Your task to perform on an android device: Where can I buy a nice beach hat? Image 0: 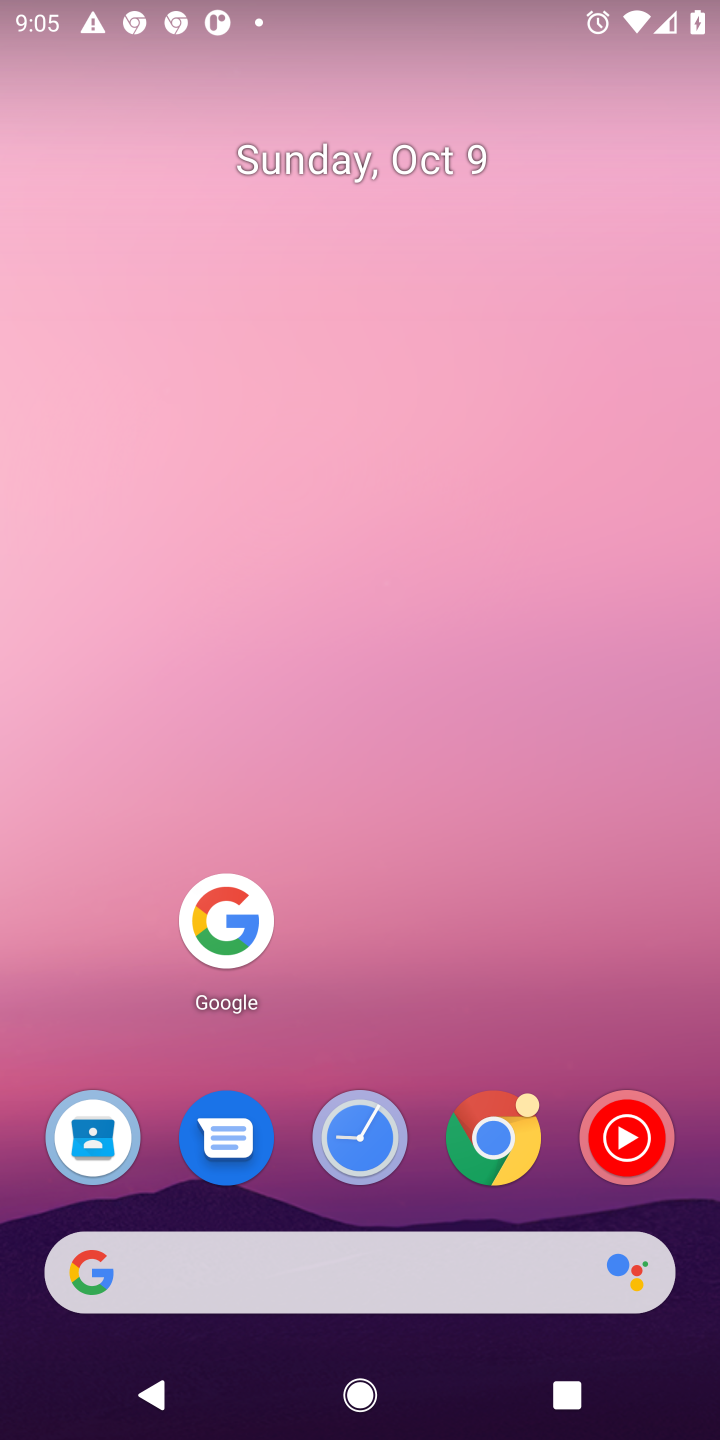
Step 0: drag from (357, 737) to (391, 430)
Your task to perform on an android device: Where can I buy a nice beach hat? Image 1: 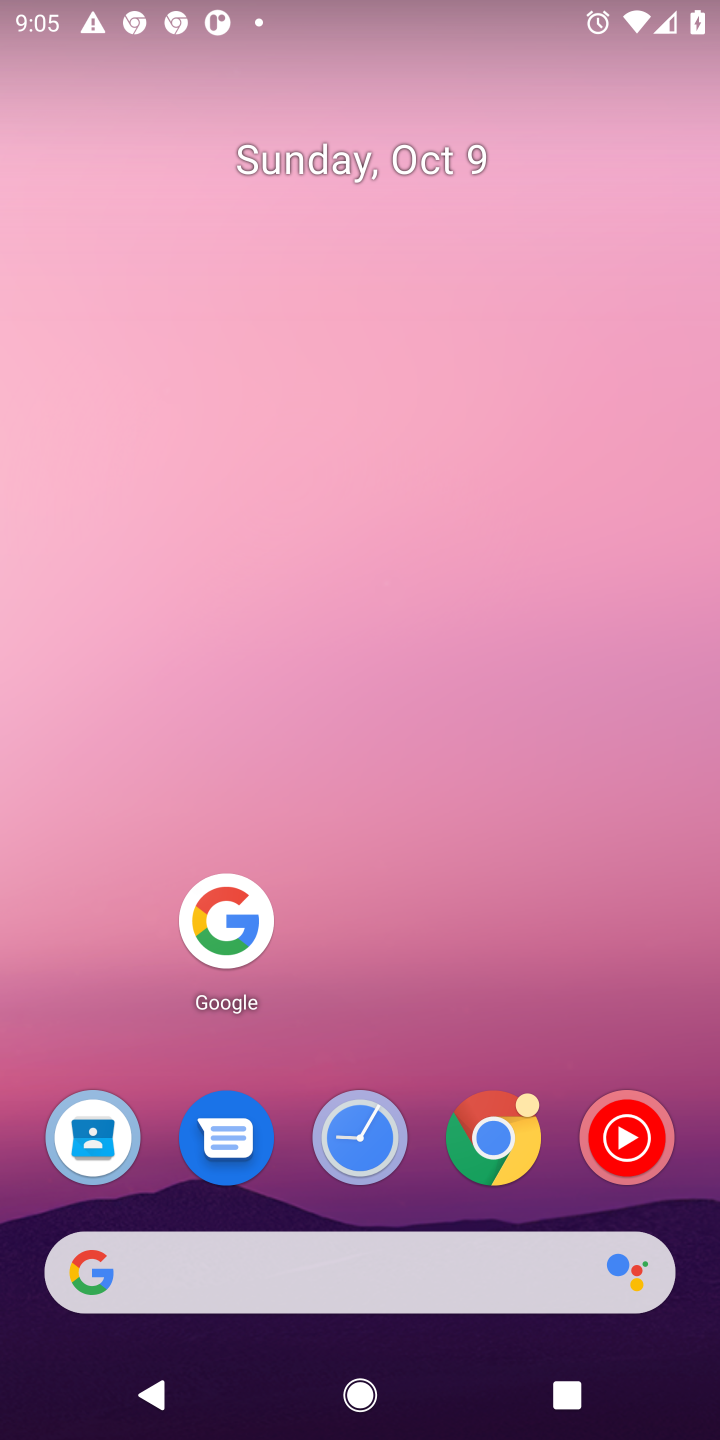
Step 1: click (213, 907)
Your task to perform on an android device: Where can I buy a nice beach hat? Image 2: 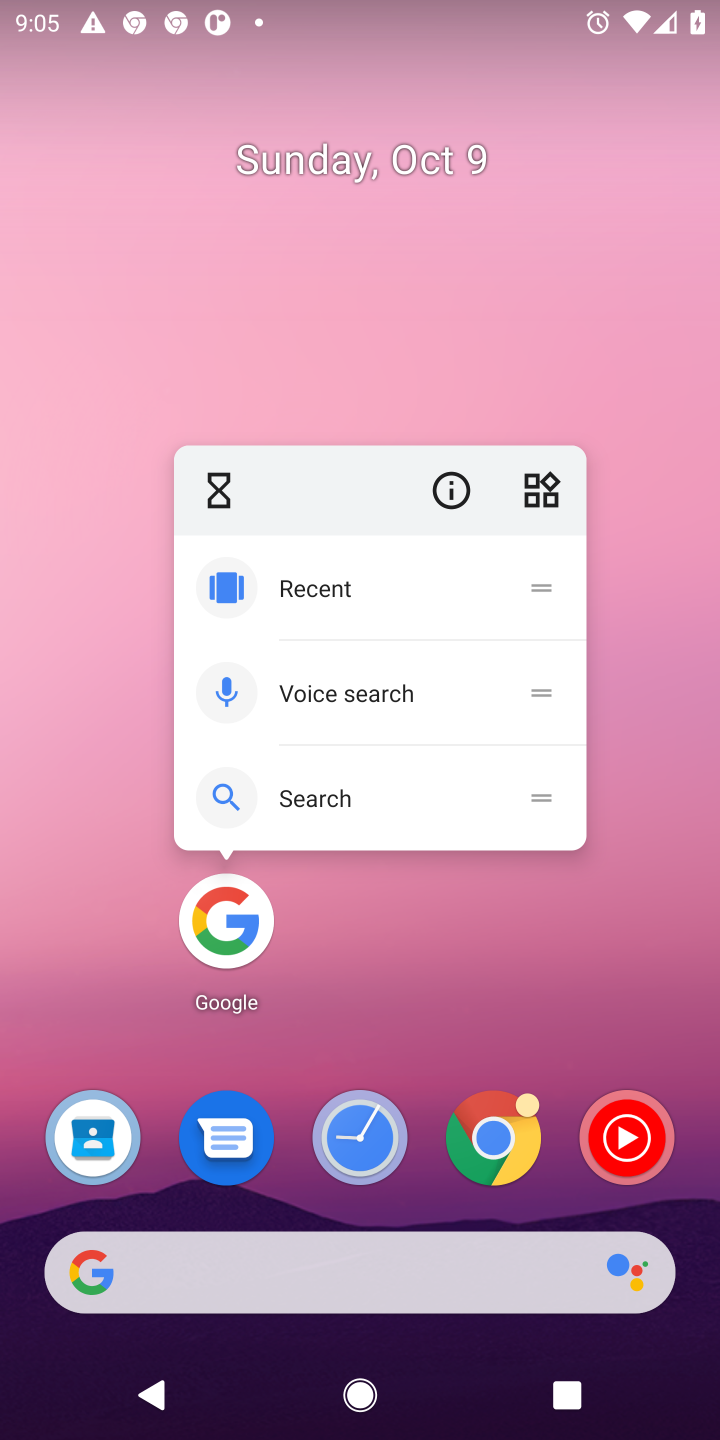
Step 2: click (213, 907)
Your task to perform on an android device: Where can I buy a nice beach hat? Image 3: 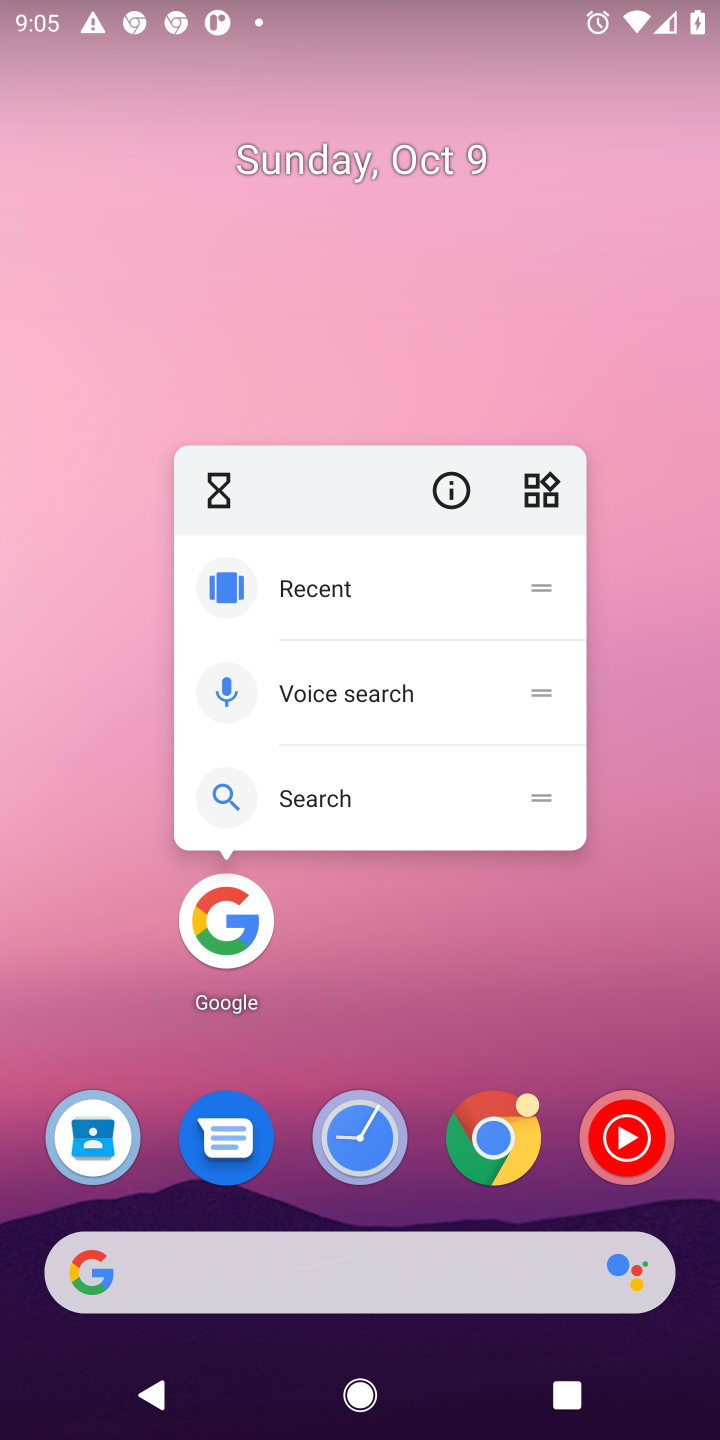
Step 3: click (213, 907)
Your task to perform on an android device: Where can I buy a nice beach hat? Image 4: 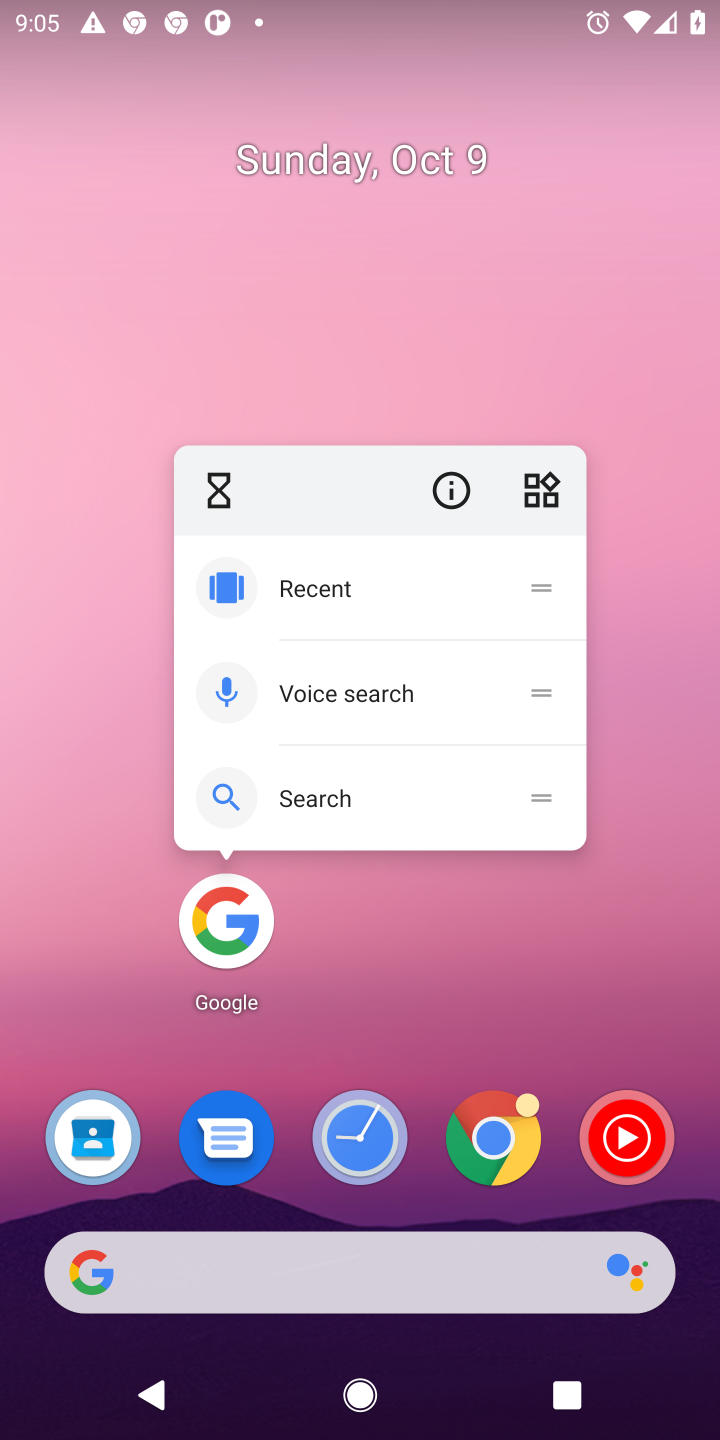
Step 4: click (200, 941)
Your task to perform on an android device: Where can I buy a nice beach hat? Image 5: 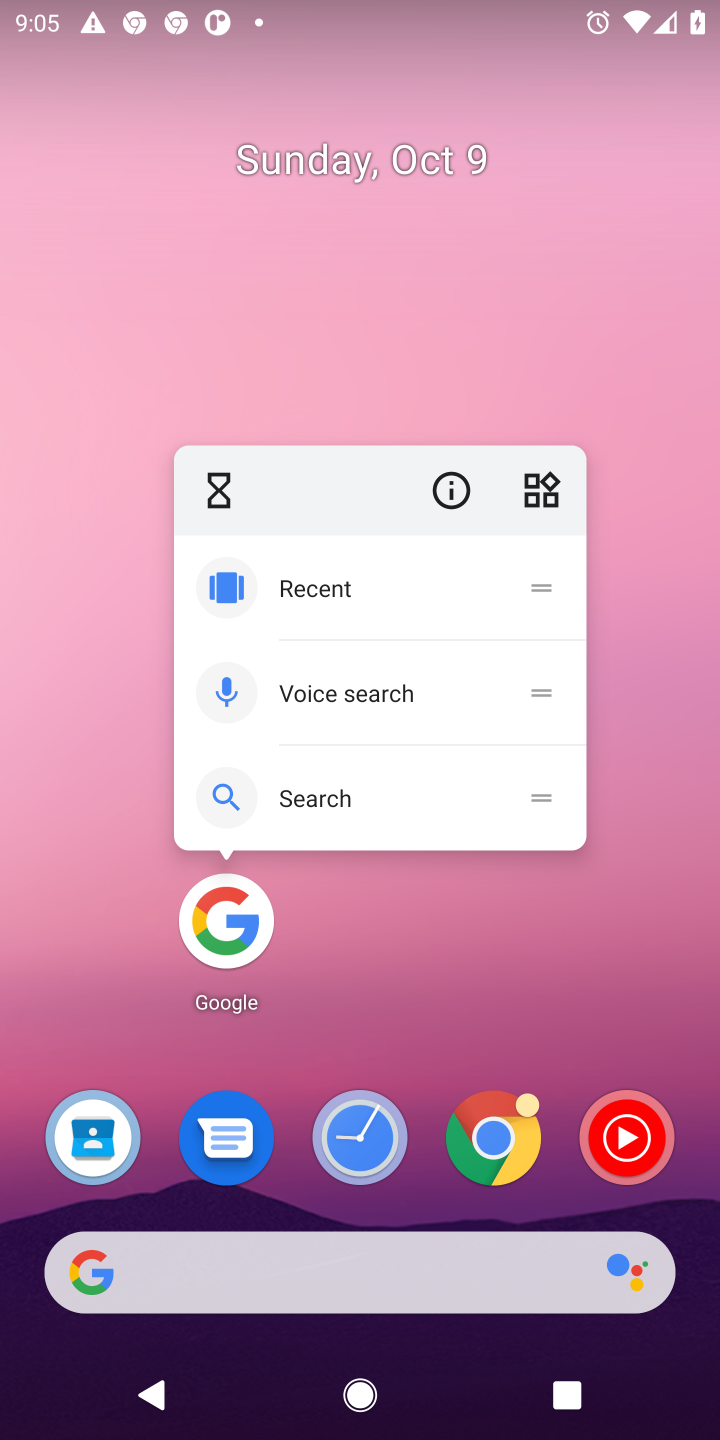
Step 5: click (236, 902)
Your task to perform on an android device: Where can I buy a nice beach hat? Image 6: 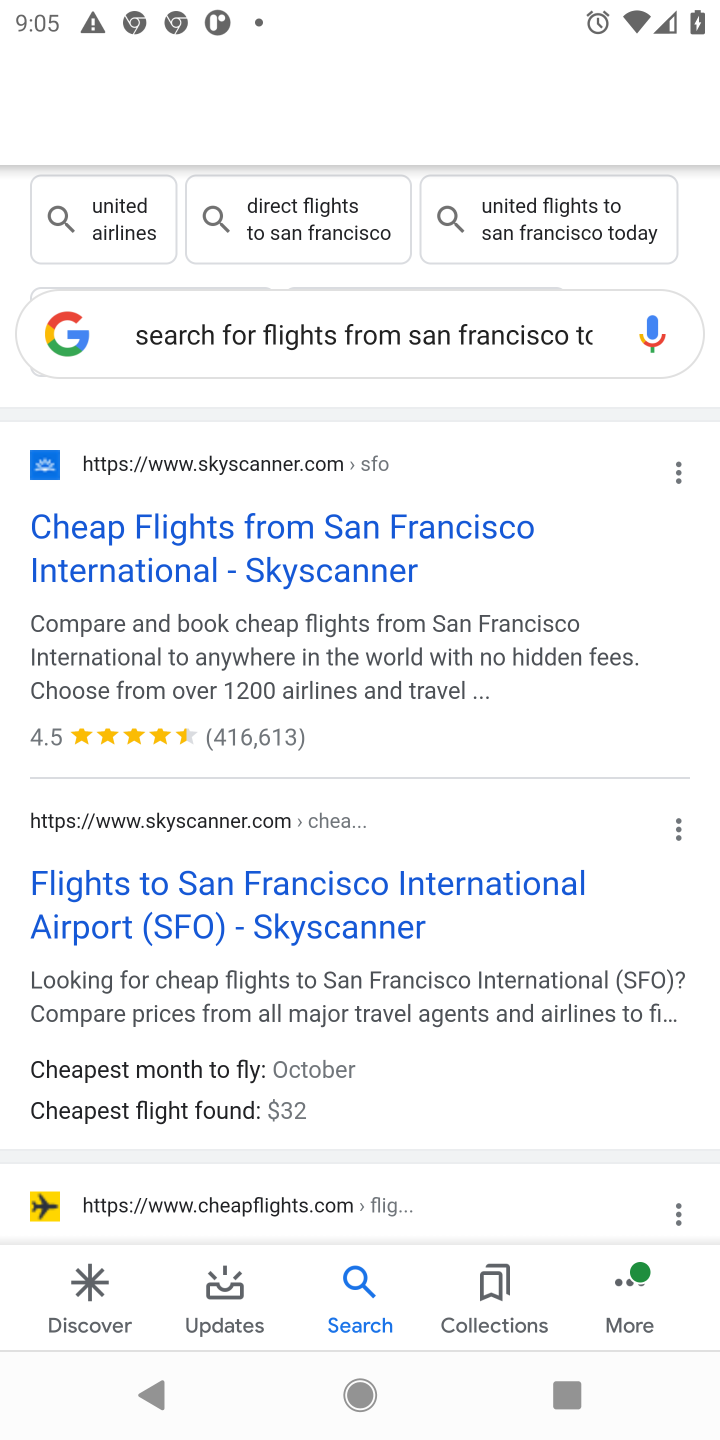
Step 6: click (318, 325)
Your task to perform on an android device: Where can I buy a nice beach hat? Image 7: 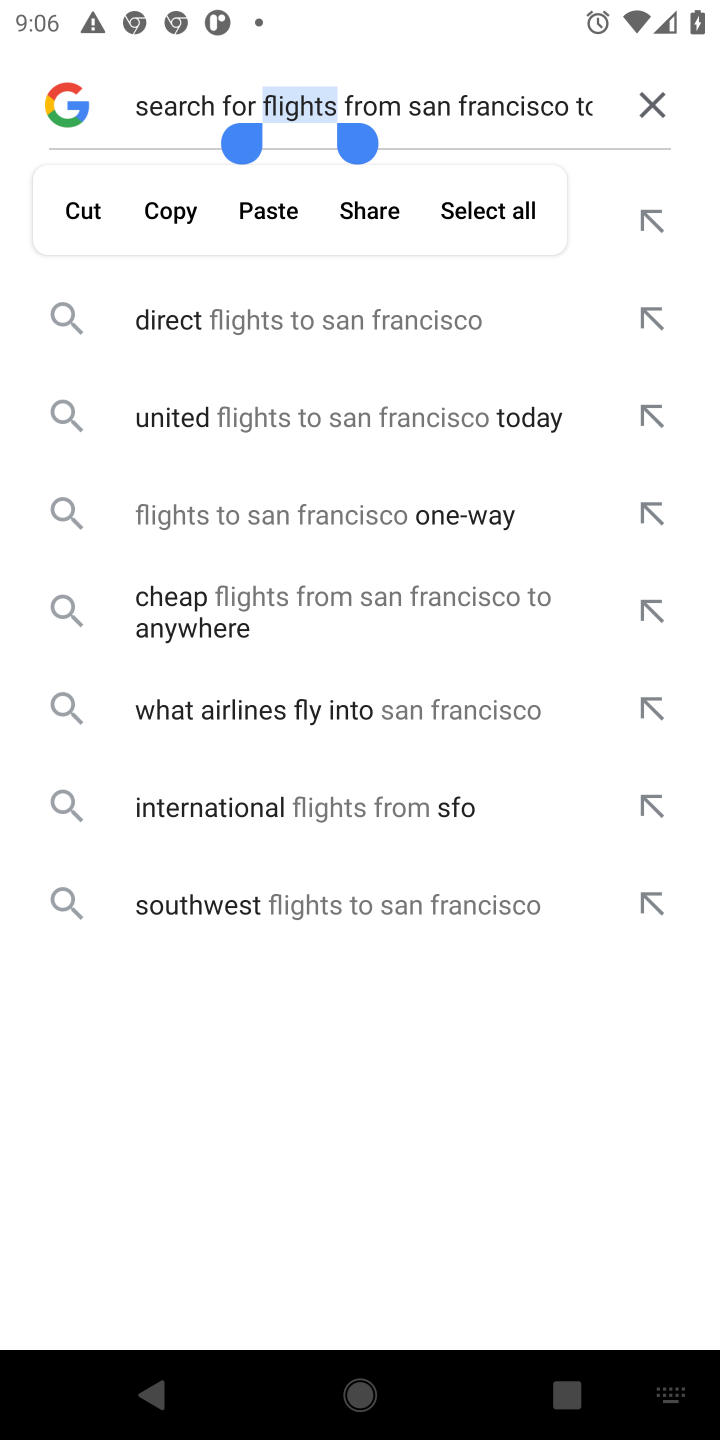
Step 7: click (668, 99)
Your task to perform on an android device: Where can I buy a nice beach hat? Image 8: 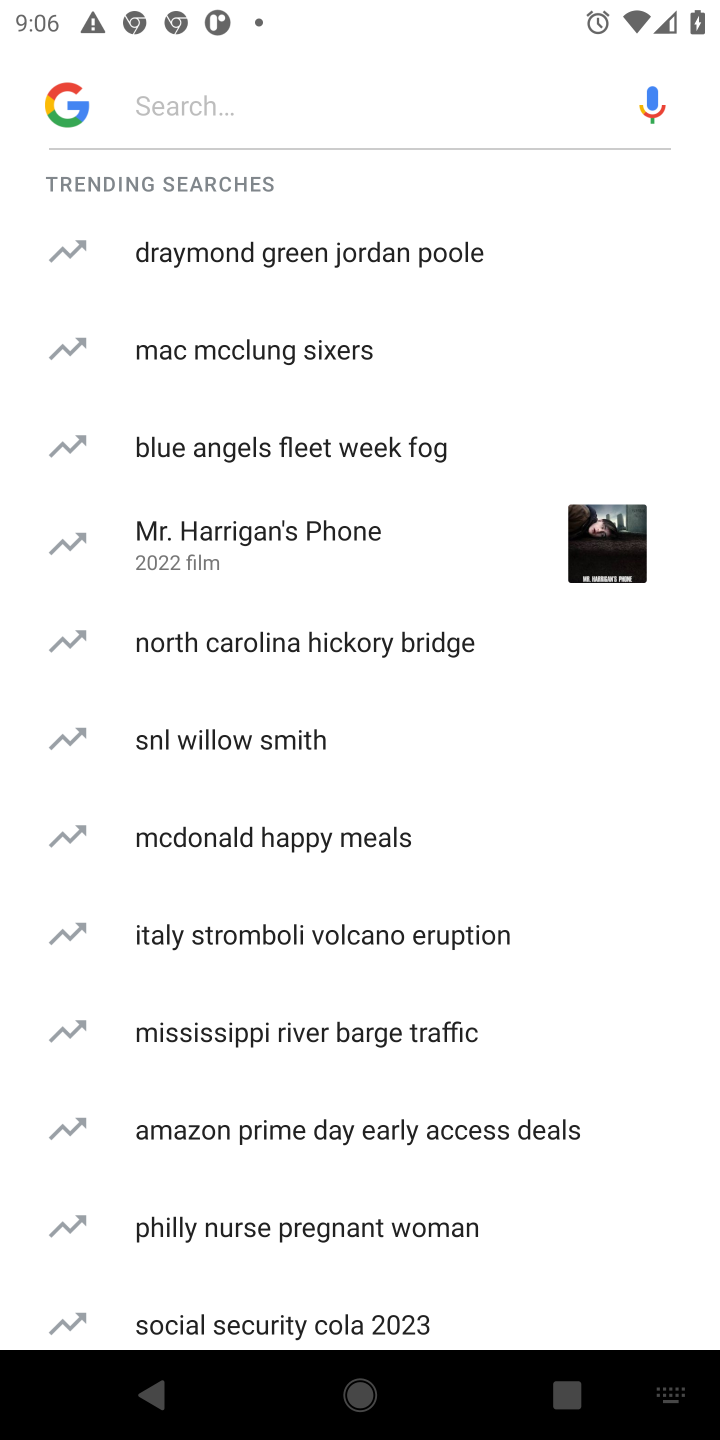
Step 8: click (336, 77)
Your task to perform on an android device: Where can I buy a nice beach hat? Image 9: 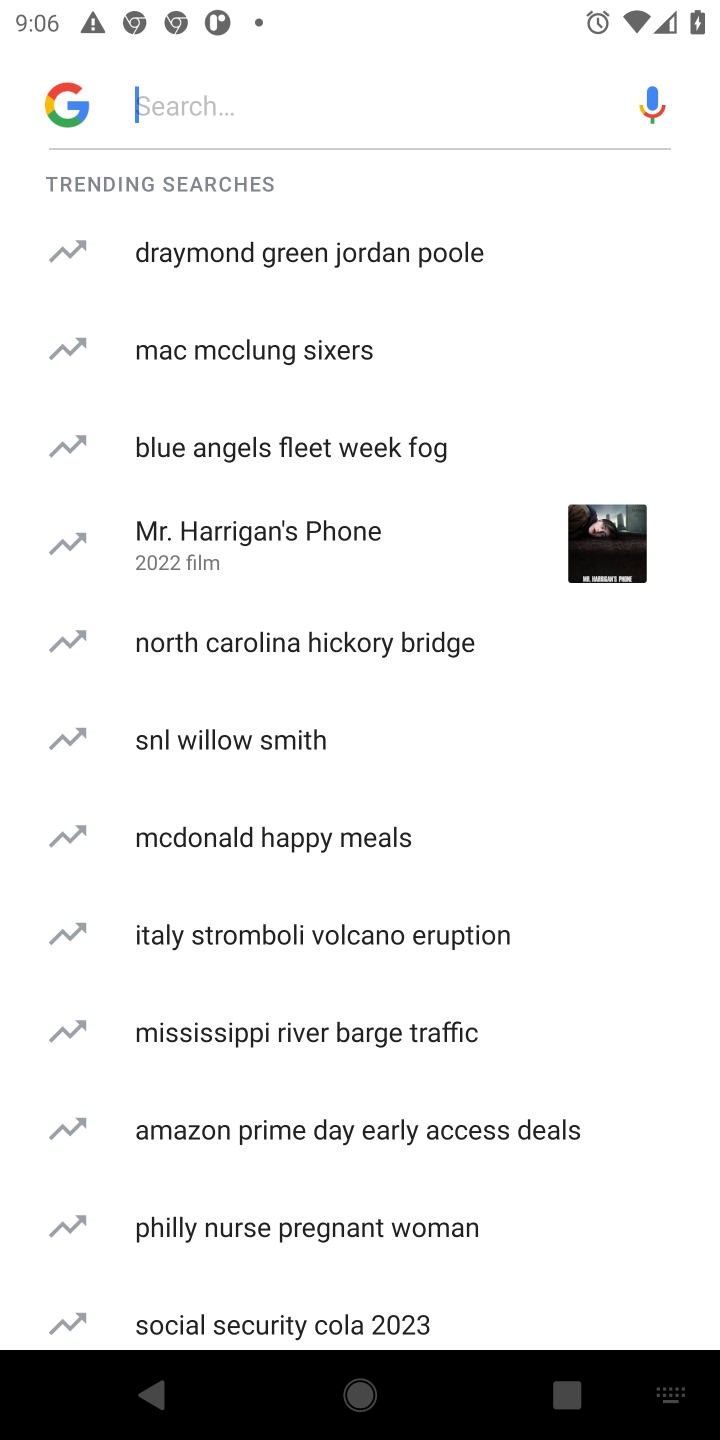
Step 9: type "Where can I buy a nice beach hat? "
Your task to perform on an android device: Where can I buy a nice beach hat? Image 10: 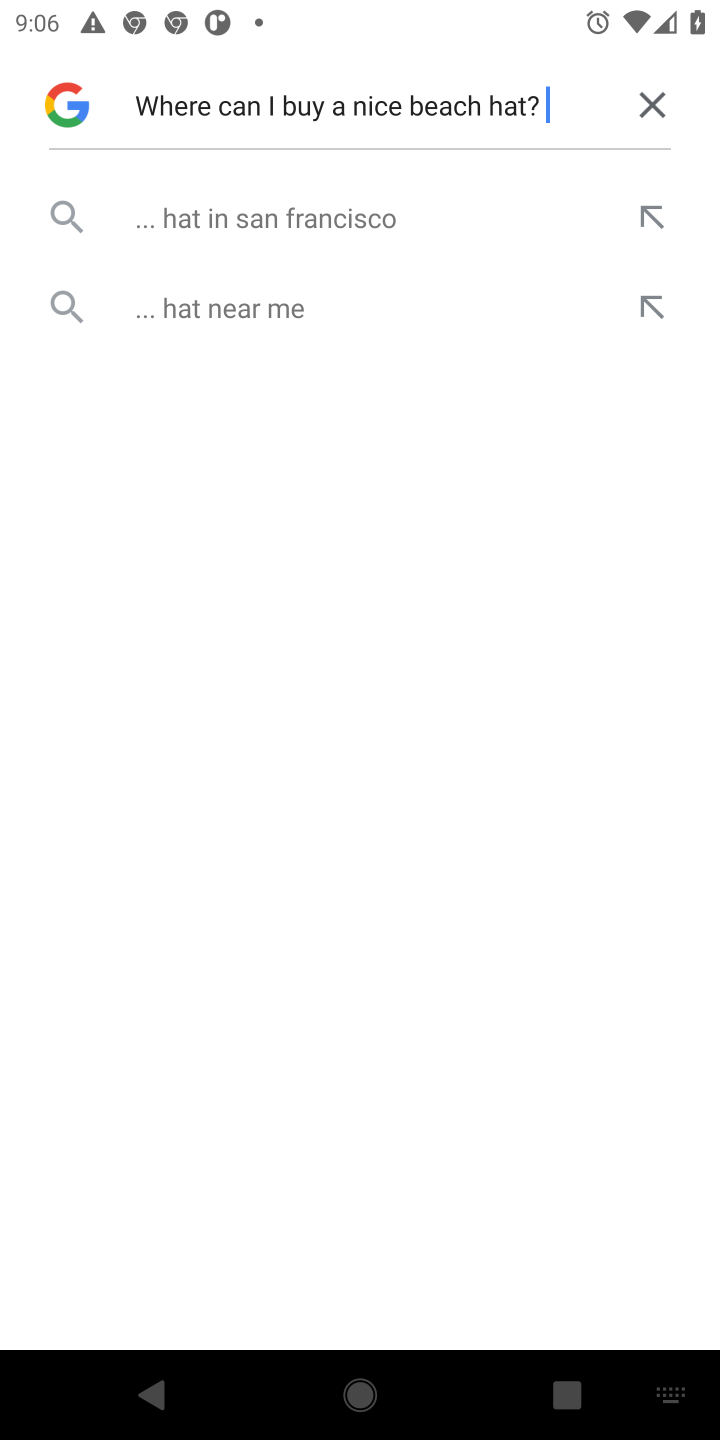
Step 10: click (225, 311)
Your task to perform on an android device: Where can I buy a nice beach hat? Image 11: 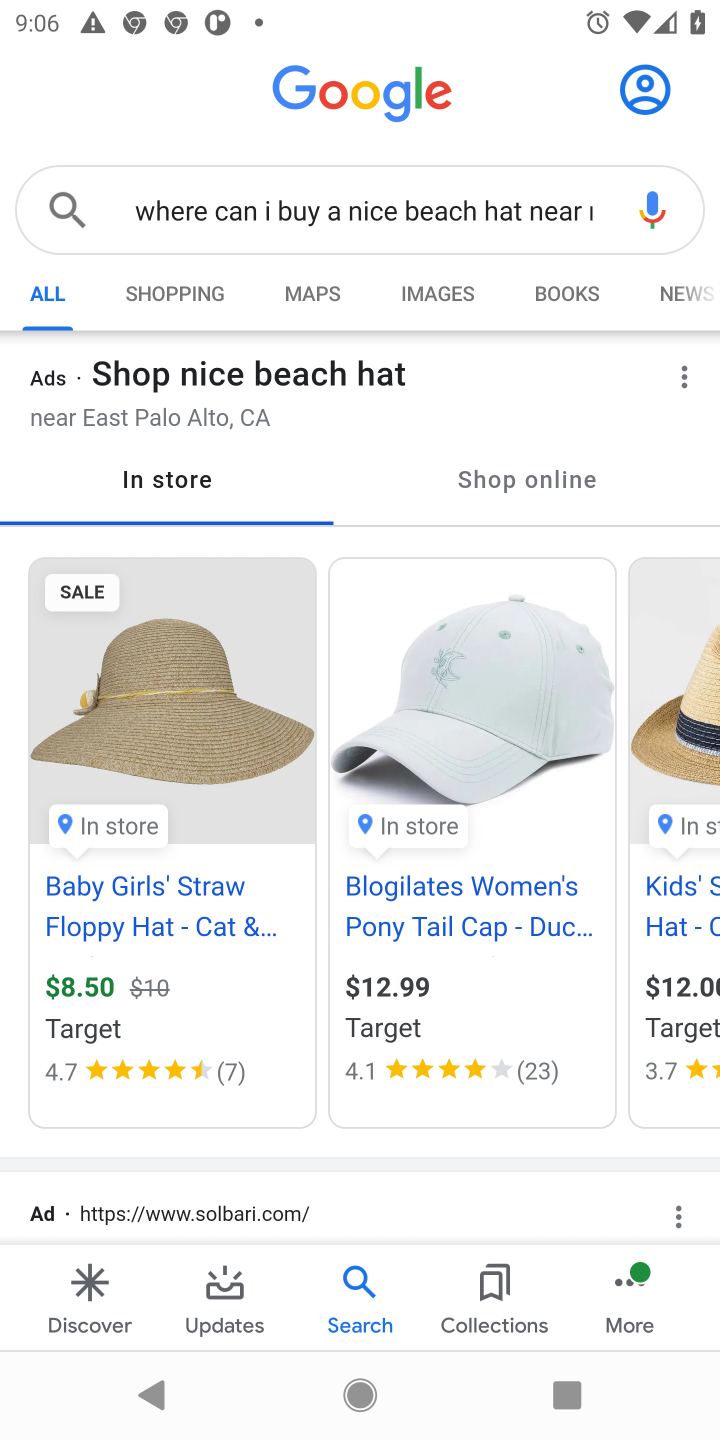
Step 11: task complete